Your task to perform on an android device: What's on my calendar today? Image 0: 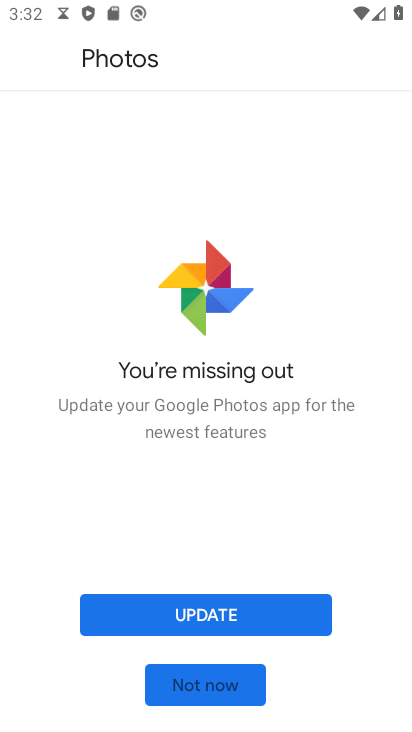
Step 0: press home button
Your task to perform on an android device: What's on my calendar today? Image 1: 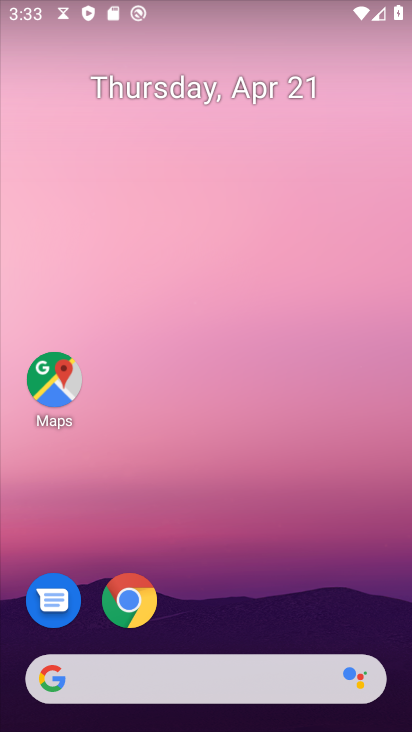
Step 1: drag from (235, 605) to (266, 34)
Your task to perform on an android device: What's on my calendar today? Image 2: 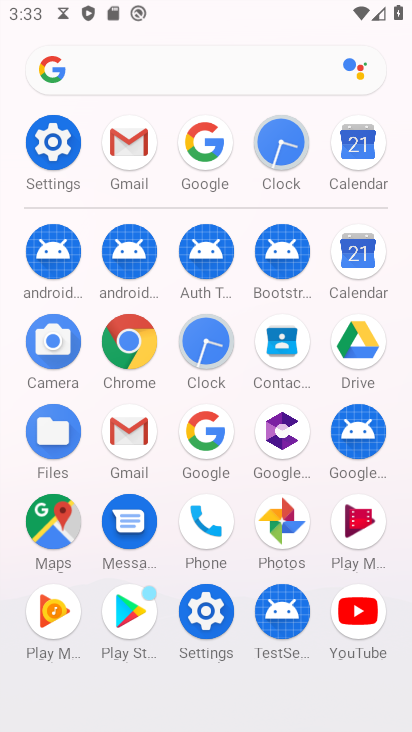
Step 2: click (358, 147)
Your task to perform on an android device: What's on my calendar today? Image 3: 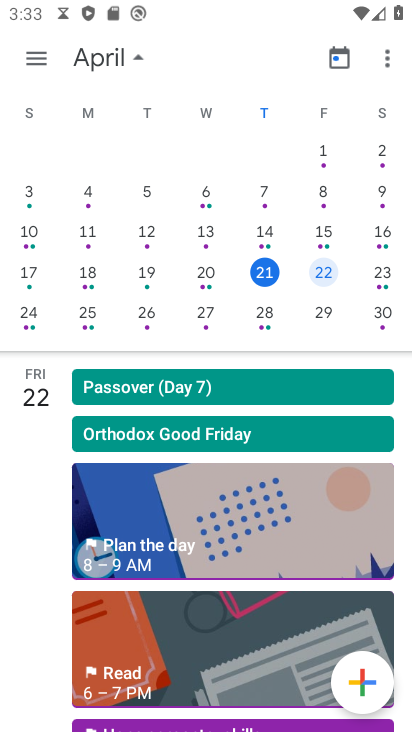
Step 3: click (341, 57)
Your task to perform on an android device: What's on my calendar today? Image 4: 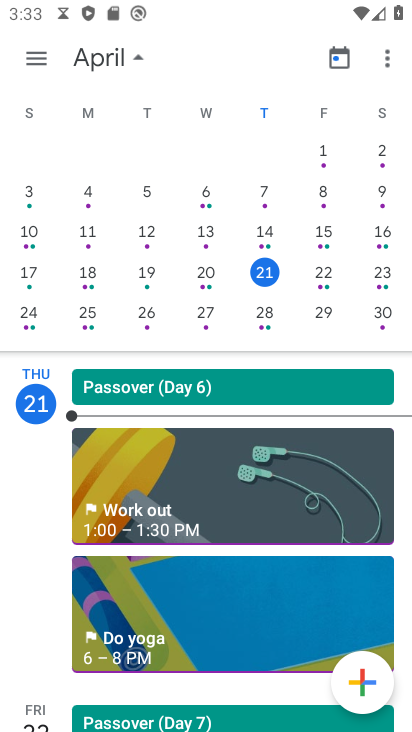
Step 4: click (36, 62)
Your task to perform on an android device: What's on my calendar today? Image 5: 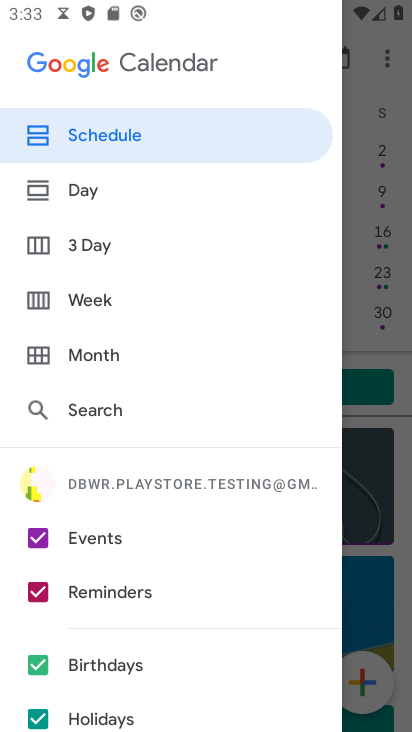
Step 5: click (99, 137)
Your task to perform on an android device: What's on my calendar today? Image 6: 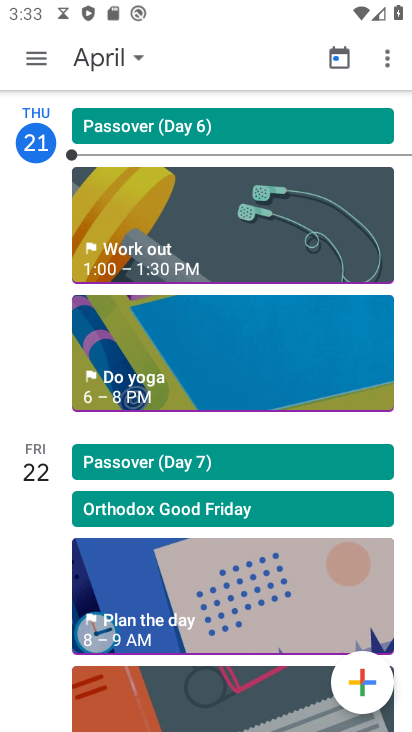
Step 6: task complete